Your task to perform on an android device: turn off wifi Image 0: 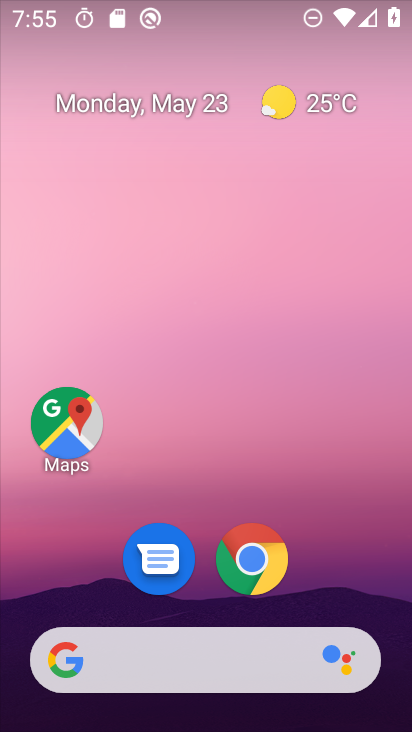
Step 0: drag from (383, 629) to (284, 63)
Your task to perform on an android device: turn off wifi Image 1: 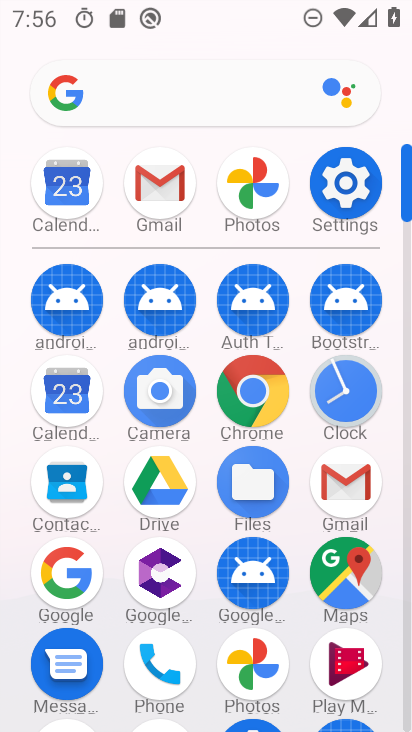
Step 1: drag from (217, 0) to (226, 524)
Your task to perform on an android device: turn off wifi Image 2: 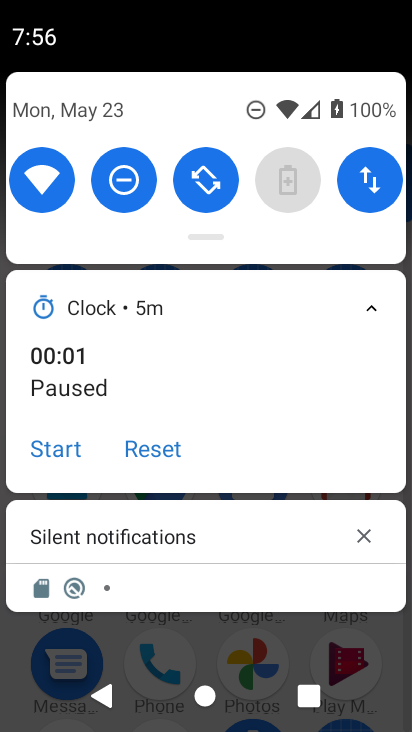
Step 2: click (42, 185)
Your task to perform on an android device: turn off wifi Image 3: 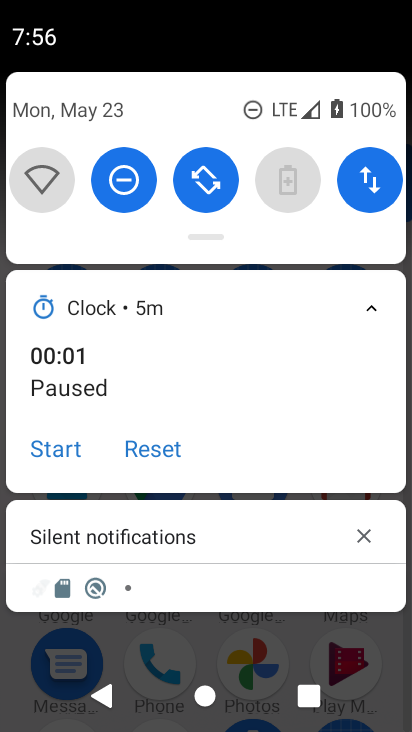
Step 3: task complete